Your task to perform on an android device: Open calendar and show me the second week of next month Image 0: 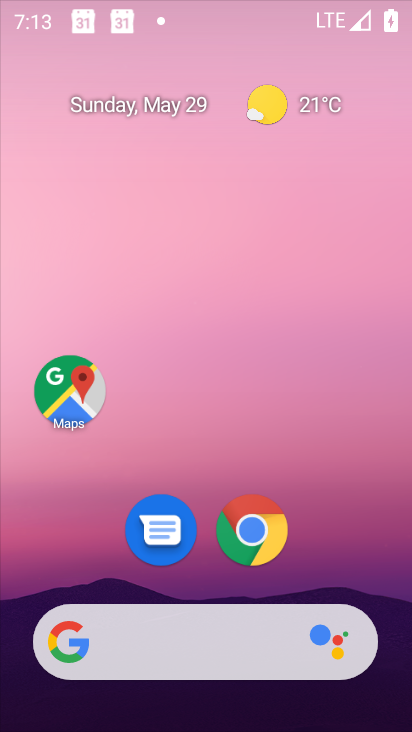
Step 0: press home button
Your task to perform on an android device: Open calendar and show me the second week of next month Image 1: 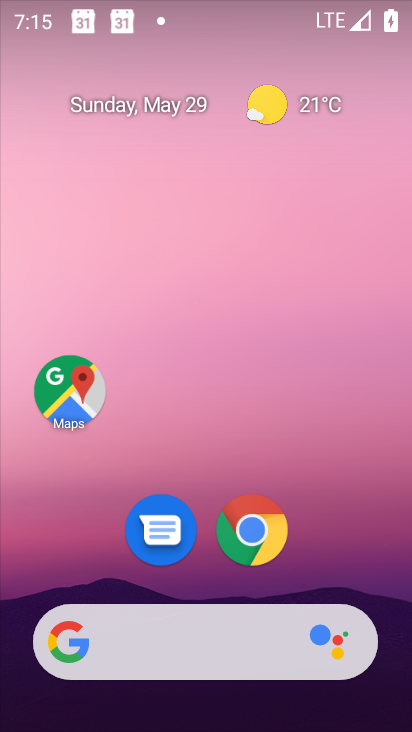
Step 1: drag from (317, 665) to (280, 159)
Your task to perform on an android device: Open calendar and show me the second week of next month Image 2: 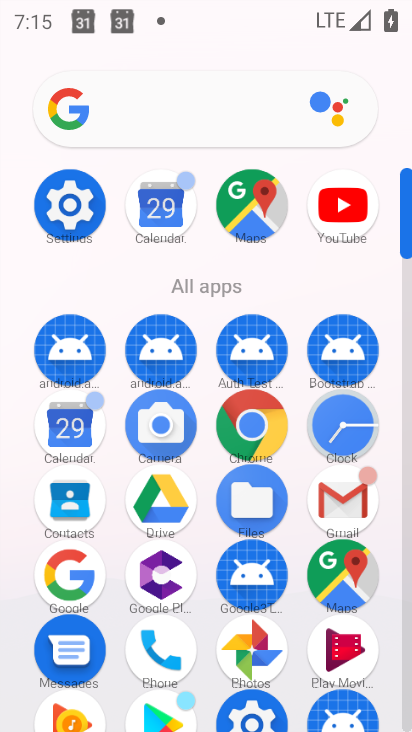
Step 2: click (72, 438)
Your task to perform on an android device: Open calendar and show me the second week of next month Image 3: 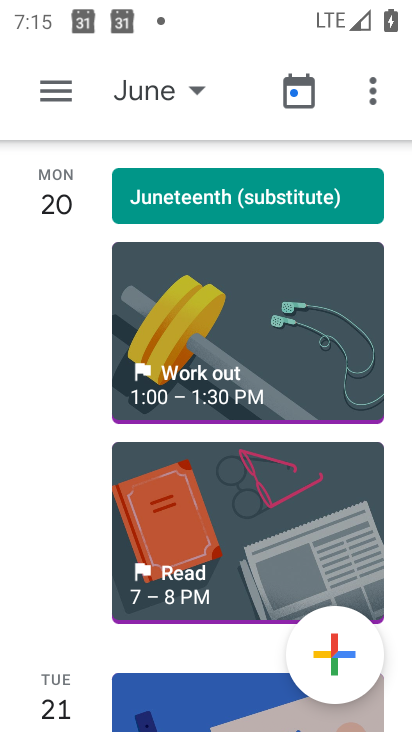
Step 3: click (69, 88)
Your task to perform on an android device: Open calendar and show me the second week of next month Image 4: 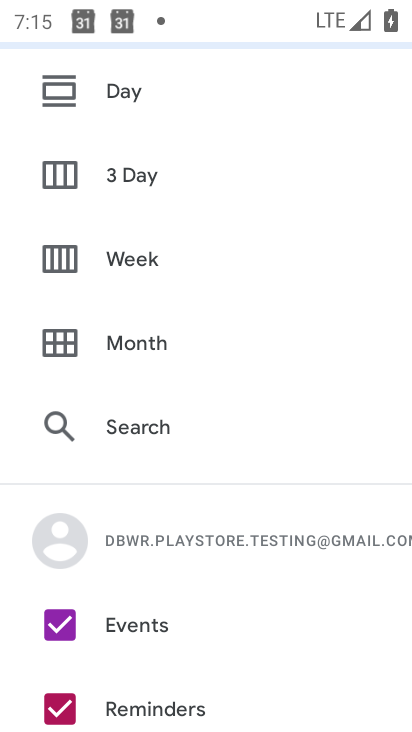
Step 4: click (144, 334)
Your task to perform on an android device: Open calendar and show me the second week of next month Image 5: 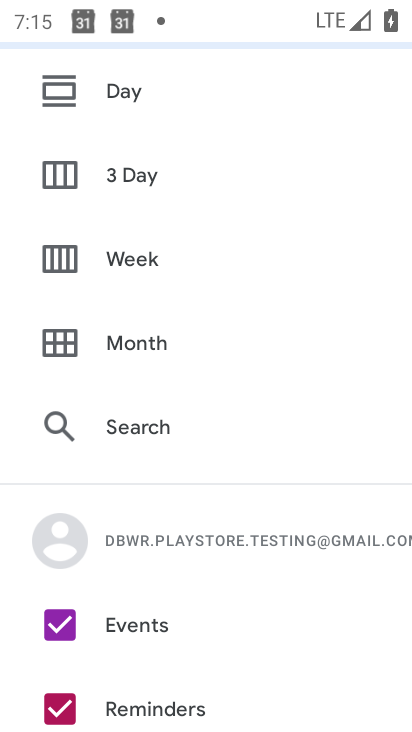
Step 5: click (156, 334)
Your task to perform on an android device: Open calendar and show me the second week of next month Image 6: 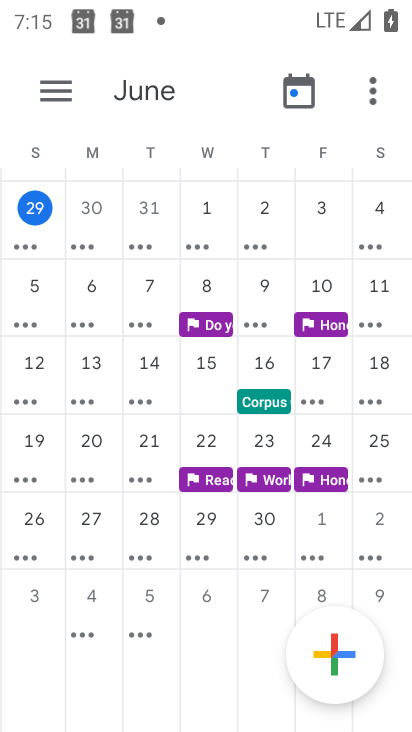
Step 6: drag from (152, 283) to (121, 296)
Your task to perform on an android device: Open calendar and show me the second week of next month Image 7: 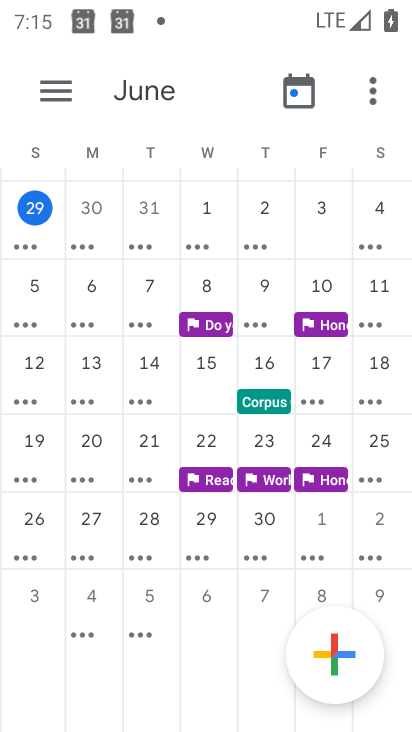
Step 7: click (80, 299)
Your task to perform on an android device: Open calendar and show me the second week of next month Image 8: 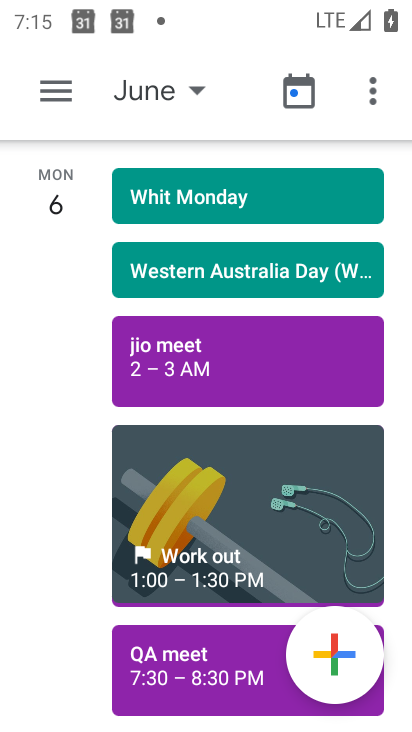
Step 8: task complete